Your task to perform on an android device: add a contact Image 0: 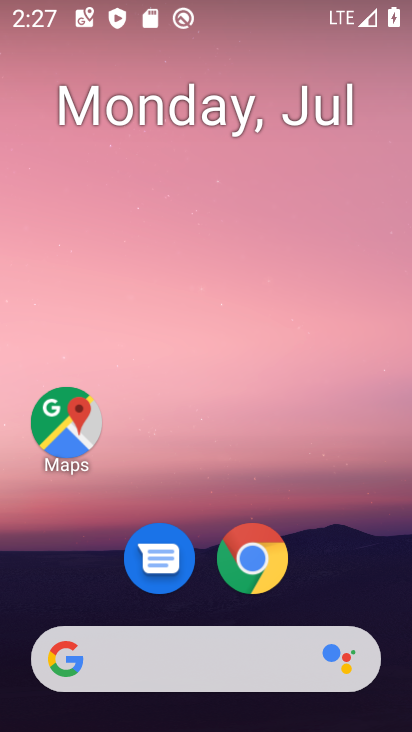
Step 0: click (408, 538)
Your task to perform on an android device: add a contact Image 1: 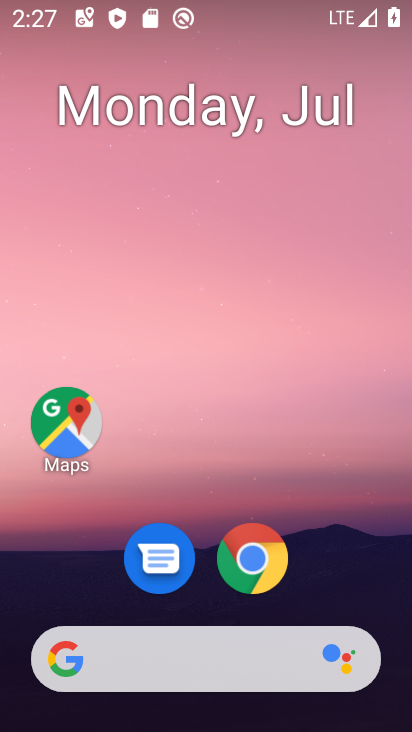
Step 1: drag from (338, 563) to (354, 72)
Your task to perform on an android device: add a contact Image 2: 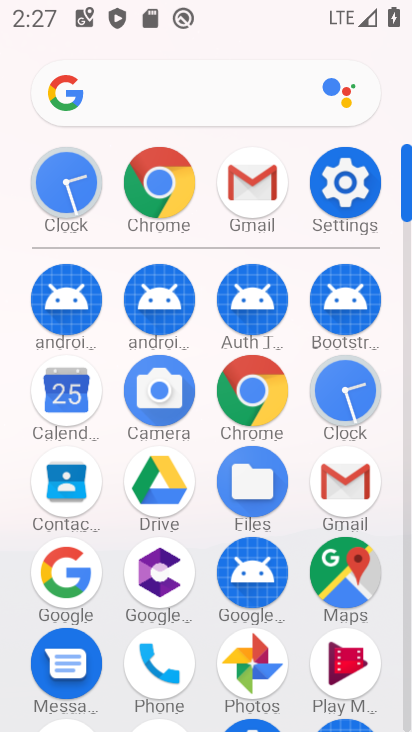
Step 2: click (72, 487)
Your task to perform on an android device: add a contact Image 3: 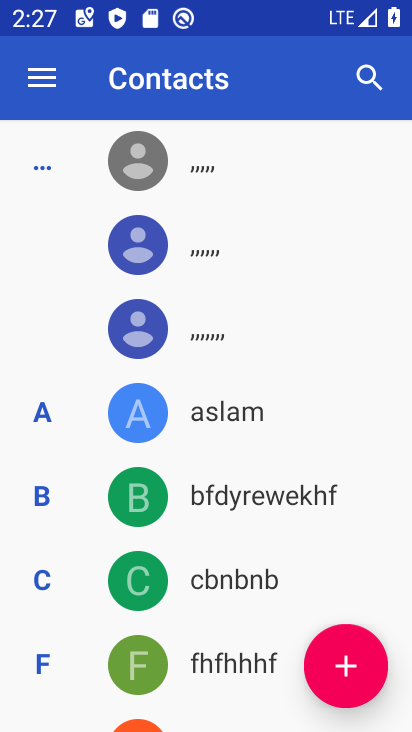
Step 3: click (346, 681)
Your task to perform on an android device: add a contact Image 4: 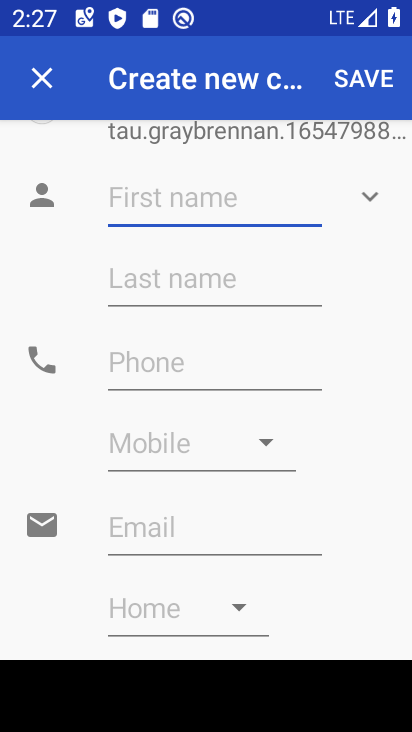
Step 4: click (234, 199)
Your task to perform on an android device: add a contact Image 5: 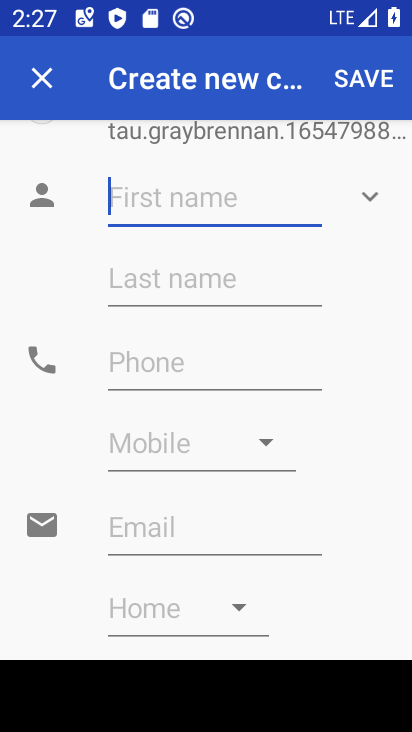
Step 5: type "fav"
Your task to perform on an android device: add a contact Image 6: 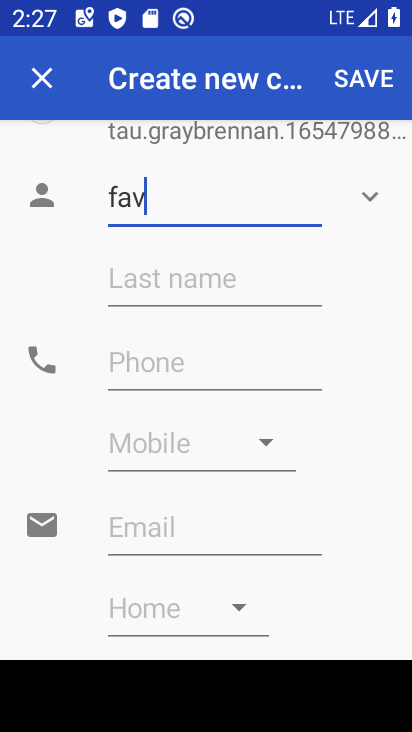
Step 6: click (214, 369)
Your task to perform on an android device: add a contact Image 7: 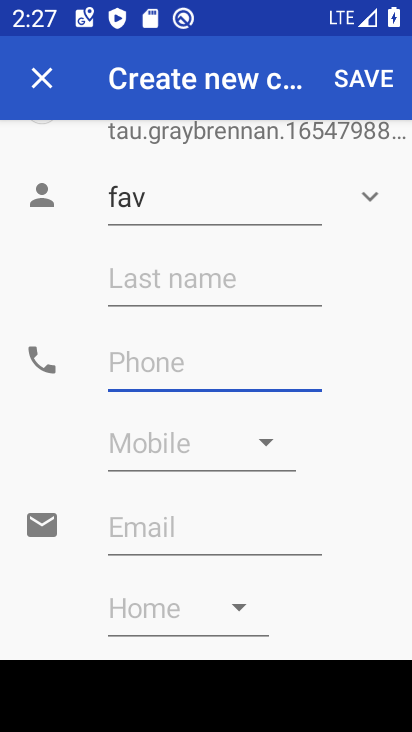
Step 7: type "1234567890"
Your task to perform on an android device: add a contact Image 8: 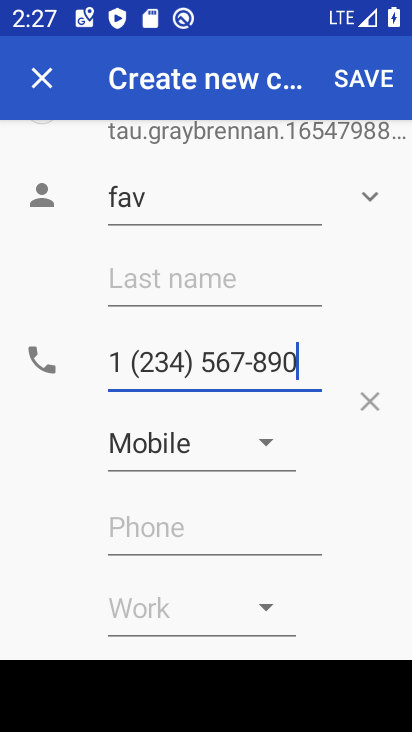
Step 8: click (377, 64)
Your task to perform on an android device: add a contact Image 9: 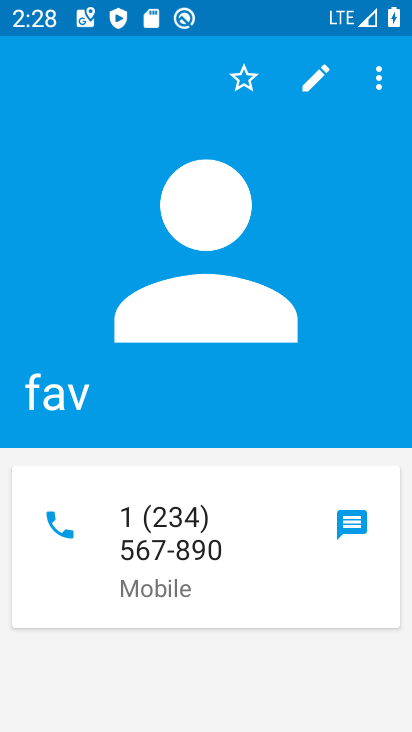
Step 9: task complete